Your task to perform on an android device: View the shopping cart on newegg.com. Search for acer nitro on newegg.com, select the first entry, and add it to the cart. Image 0: 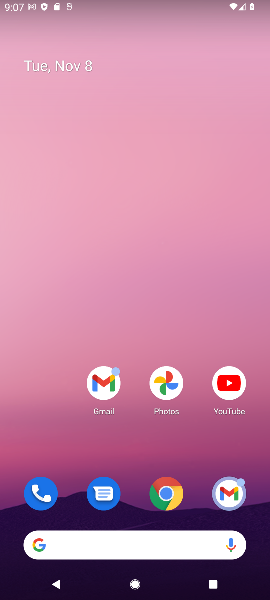
Step 0: click (169, 491)
Your task to perform on an android device: View the shopping cart on newegg.com. Search for acer nitro on newegg.com, select the first entry, and add it to the cart. Image 1: 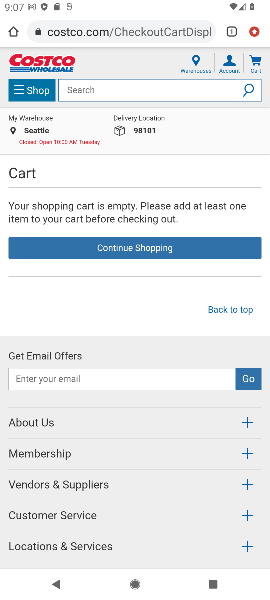
Step 1: click (93, 29)
Your task to perform on an android device: View the shopping cart on newegg.com. Search for acer nitro on newegg.com, select the first entry, and add it to the cart. Image 2: 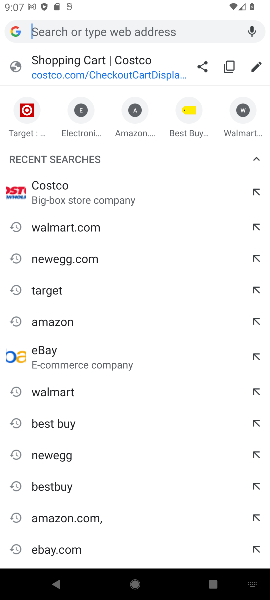
Step 2: click (57, 262)
Your task to perform on an android device: View the shopping cart on newegg.com. Search for acer nitro on newegg.com, select the first entry, and add it to the cart. Image 3: 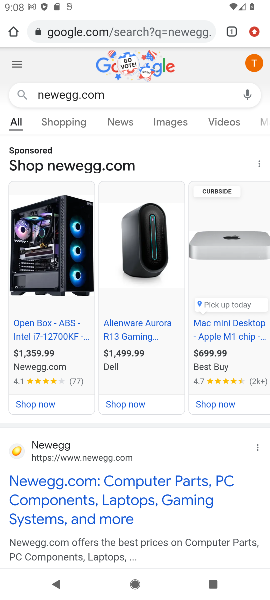
Step 3: drag from (84, 433) to (113, 277)
Your task to perform on an android device: View the shopping cart on newegg.com. Search for acer nitro on newegg.com, select the first entry, and add it to the cart. Image 4: 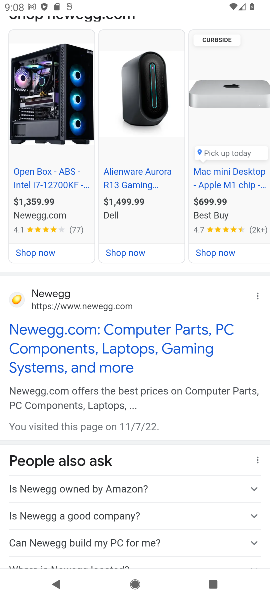
Step 4: click (60, 314)
Your task to perform on an android device: View the shopping cart on newegg.com. Search for acer nitro on newegg.com, select the first entry, and add it to the cart. Image 5: 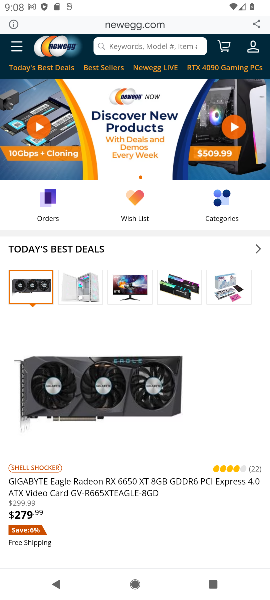
Step 5: click (228, 50)
Your task to perform on an android device: View the shopping cart on newegg.com. Search for acer nitro on newegg.com, select the first entry, and add it to the cart. Image 6: 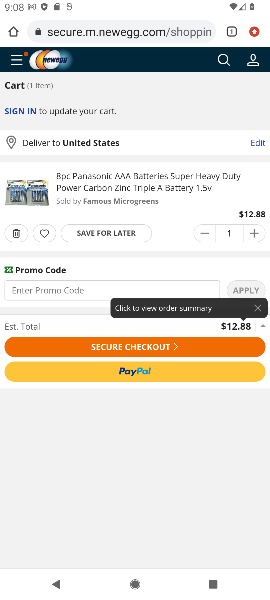
Step 6: click (219, 59)
Your task to perform on an android device: View the shopping cart on newegg.com. Search for acer nitro on newegg.com, select the first entry, and add it to the cart. Image 7: 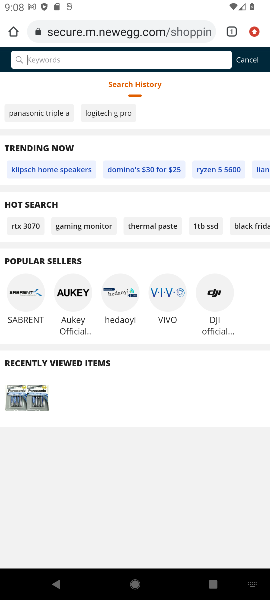
Step 7: type "acer nitro"
Your task to perform on an android device: View the shopping cart on newegg.com. Search for acer nitro on newegg.com, select the first entry, and add it to the cart. Image 8: 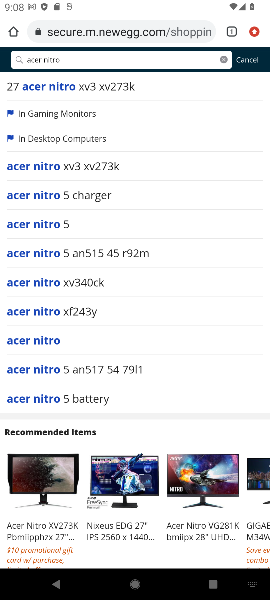
Step 8: click (41, 344)
Your task to perform on an android device: View the shopping cart on newegg.com. Search for acer nitro on newegg.com, select the first entry, and add it to the cart. Image 9: 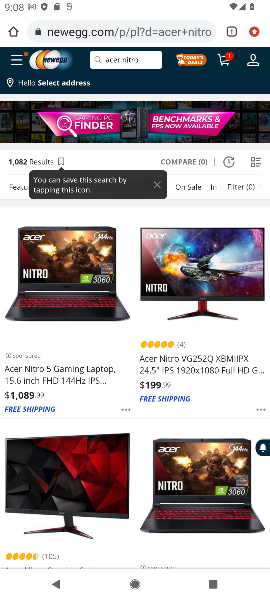
Step 9: click (63, 303)
Your task to perform on an android device: View the shopping cart on newegg.com. Search for acer nitro on newegg.com, select the first entry, and add it to the cart. Image 10: 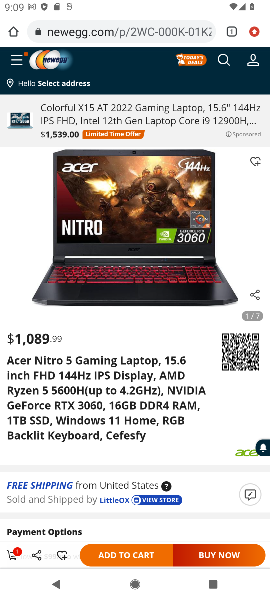
Step 10: click (118, 554)
Your task to perform on an android device: View the shopping cart on newegg.com. Search for acer nitro on newegg.com, select the first entry, and add it to the cart. Image 11: 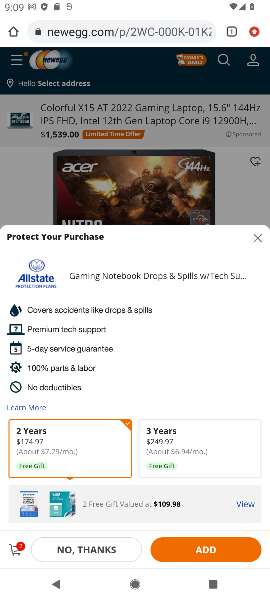
Step 11: task complete